Your task to perform on an android device: search for starred emails in the gmail app Image 0: 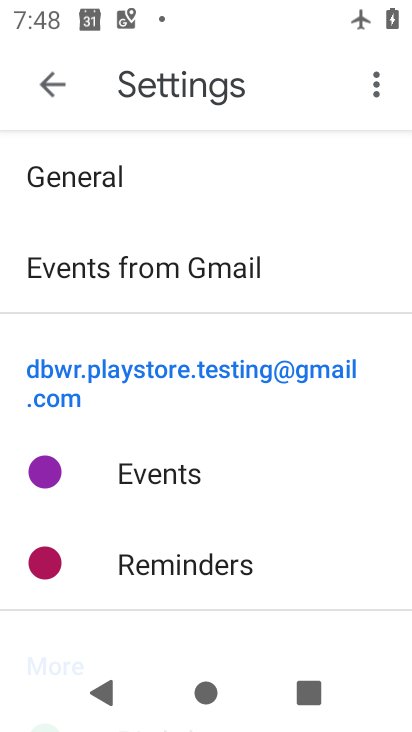
Step 0: press home button
Your task to perform on an android device: search for starred emails in the gmail app Image 1: 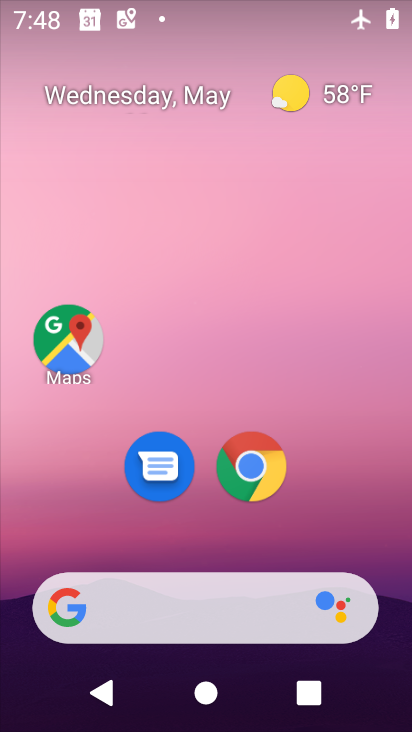
Step 1: drag from (204, 543) to (273, 68)
Your task to perform on an android device: search for starred emails in the gmail app Image 2: 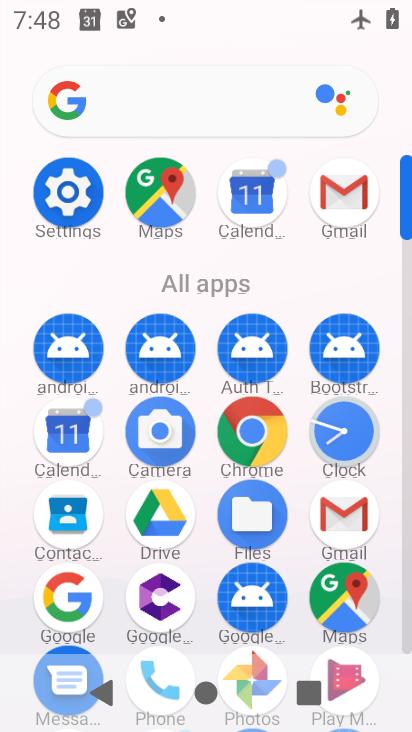
Step 2: click (344, 511)
Your task to perform on an android device: search for starred emails in the gmail app Image 3: 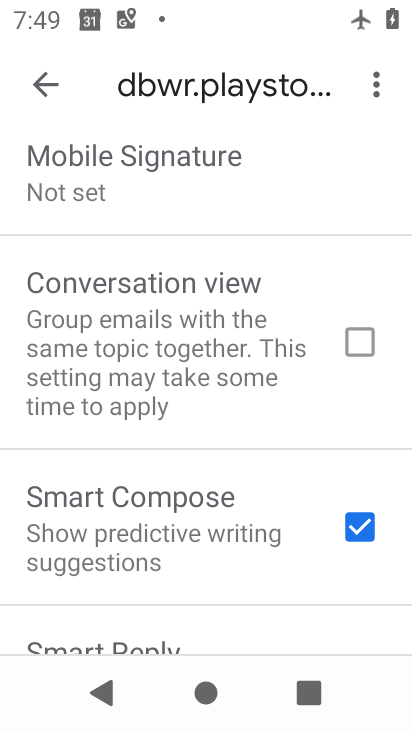
Step 3: click (47, 89)
Your task to perform on an android device: search for starred emails in the gmail app Image 4: 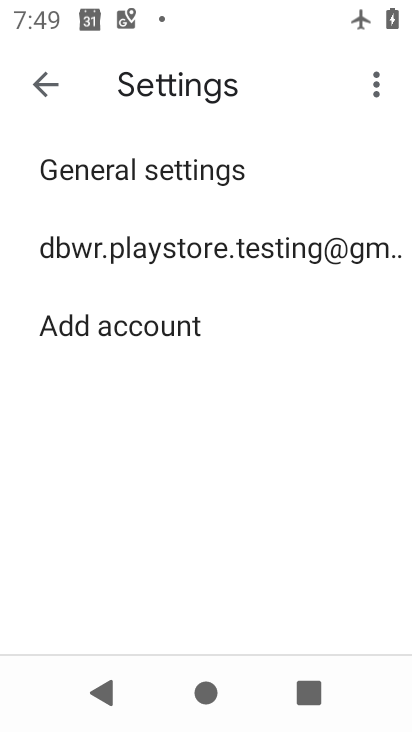
Step 4: click (51, 85)
Your task to perform on an android device: search for starred emails in the gmail app Image 5: 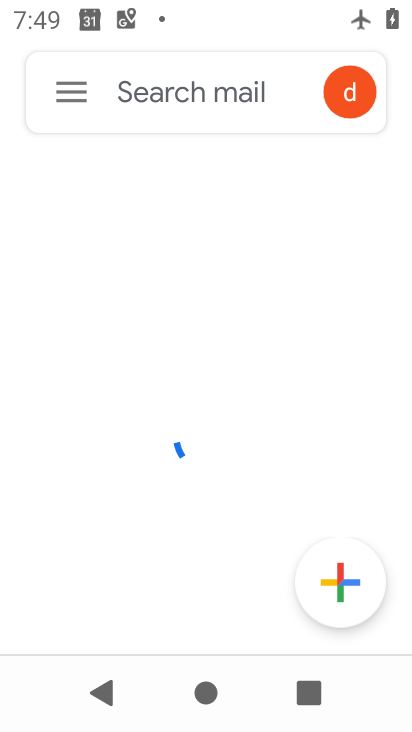
Step 5: click (72, 99)
Your task to perform on an android device: search for starred emails in the gmail app Image 6: 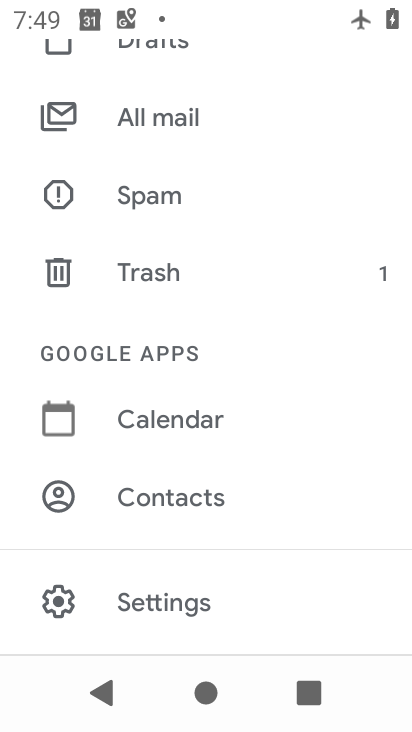
Step 6: drag from (144, 160) to (159, 623)
Your task to perform on an android device: search for starred emails in the gmail app Image 7: 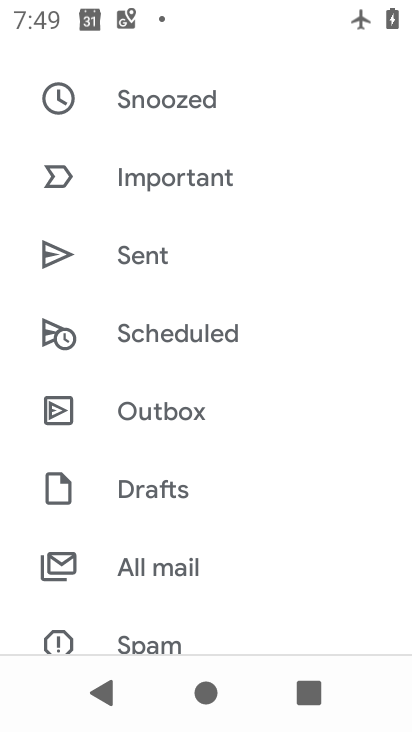
Step 7: drag from (105, 172) to (104, 536)
Your task to perform on an android device: search for starred emails in the gmail app Image 8: 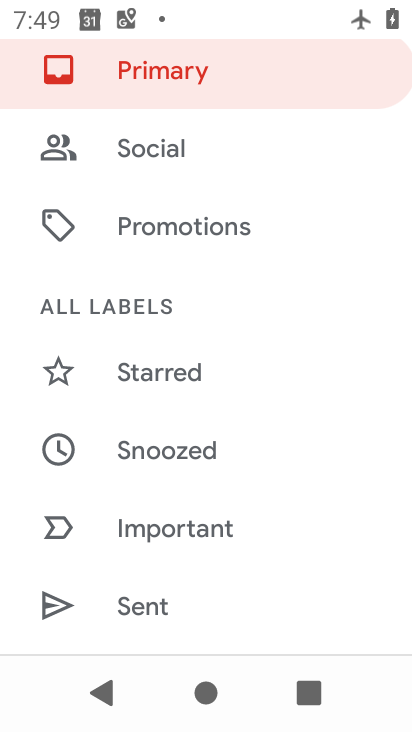
Step 8: click (98, 370)
Your task to perform on an android device: search for starred emails in the gmail app Image 9: 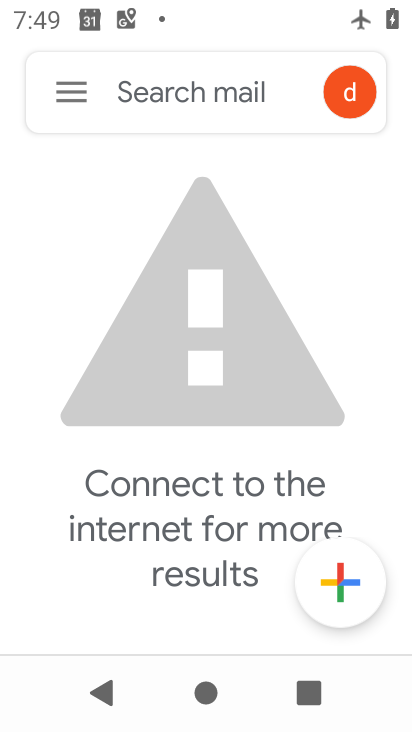
Step 9: task complete